Your task to perform on an android device: Open Yahoo.com Image 0: 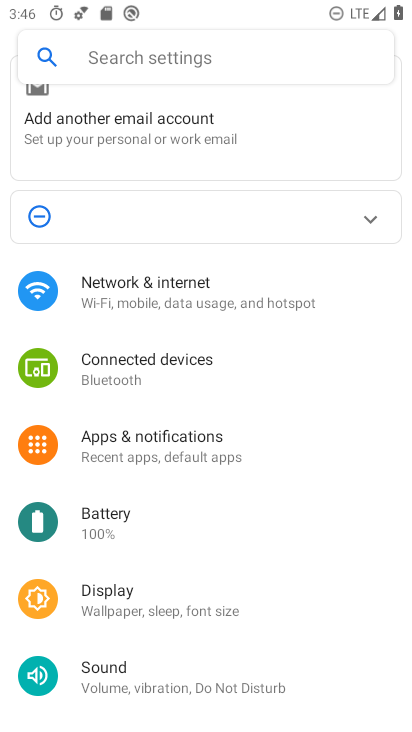
Step 0: press home button
Your task to perform on an android device: Open Yahoo.com Image 1: 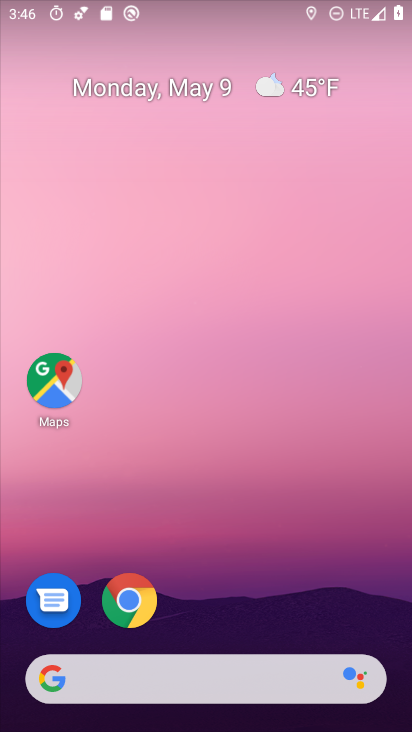
Step 1: click (141, 603)
Your task to perform on an android device: Open Yahoo.com Image 2: 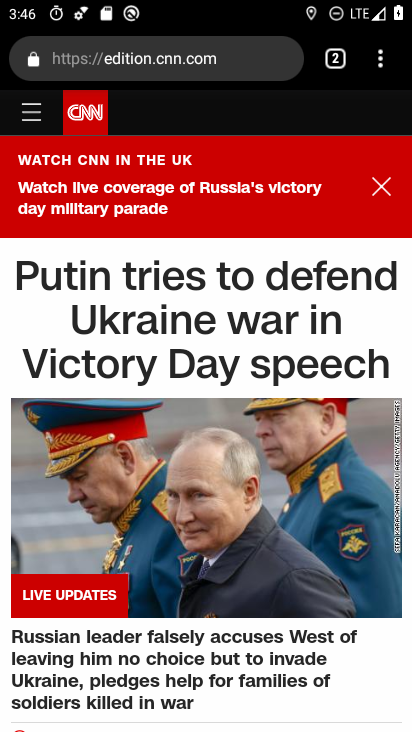
Step 2: click (191, 67)
Your task to perform on an android device: Open Yahoo.com Image 3: 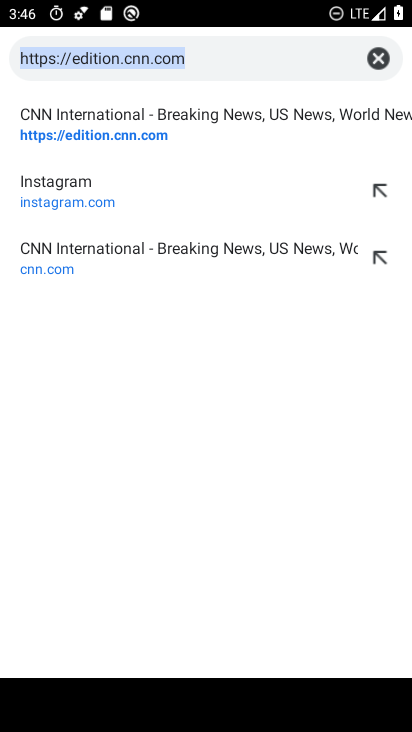
Step 3: type "yahoo.com"
Your task to perform on an android device: Open Yahoo.com Image 4: 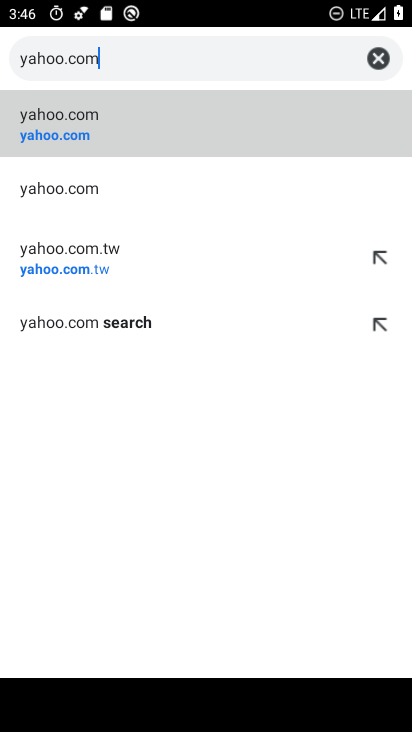
Step 4: click (113, 139)
Your task to perform on an android device: Open Yahoo.com Image 5: 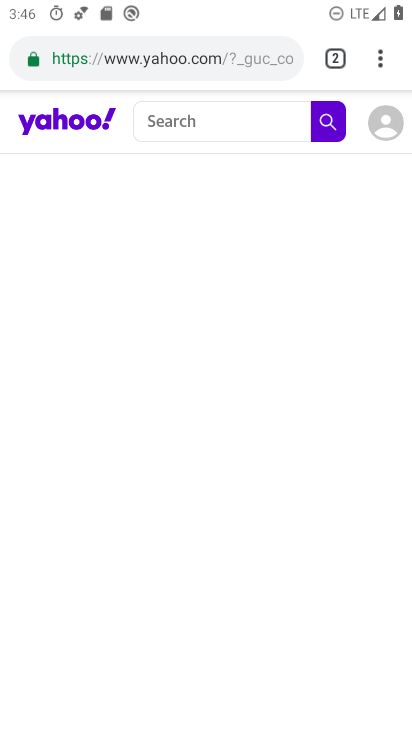
Step 5: task complete